Your task to perform on an android device: Go to CNN.com Image 0: 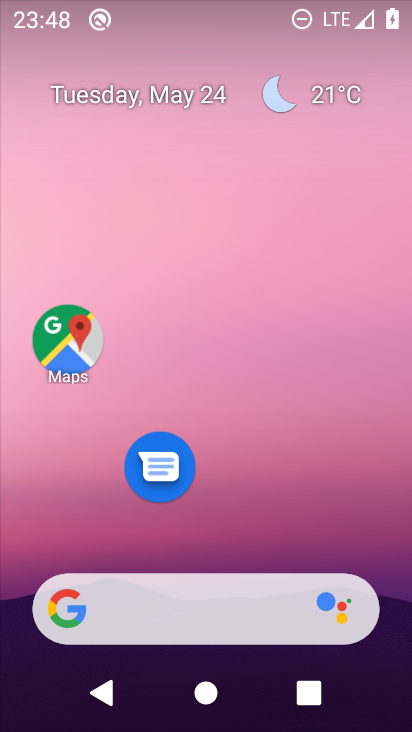
Step 0: drag from (216, 537) to (0, 540)
Your task to perform on an android device: Go to CNN.com Image 1: 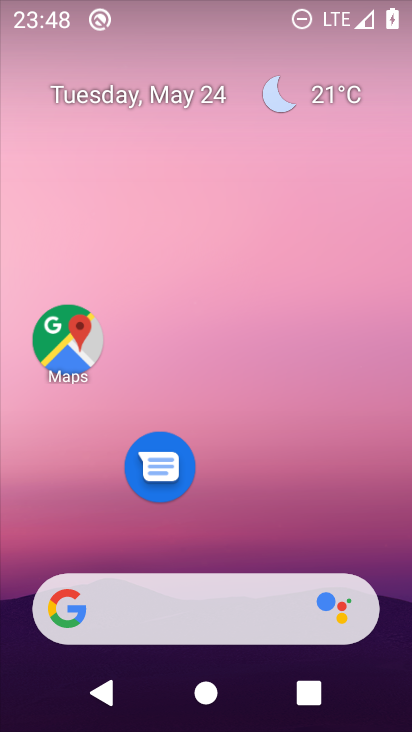
Step 1: drag from (239, 511) to (234, 15)
Your task to perform on an android device: Go to CNN.com Image 2: 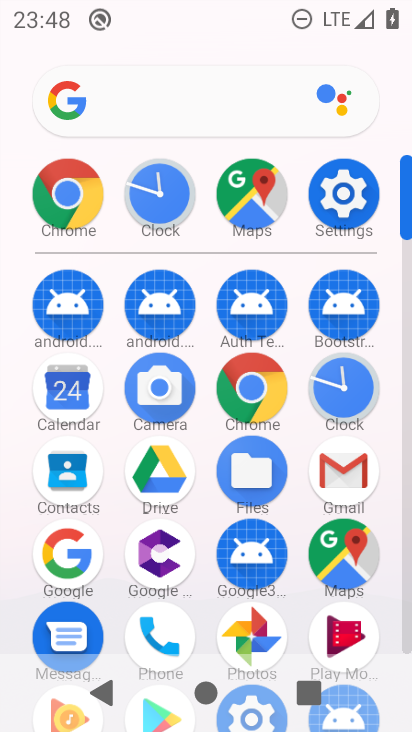
Step 2: click (150, 115)
Your task to perform on an android device: Go to CNN.com Image 3: 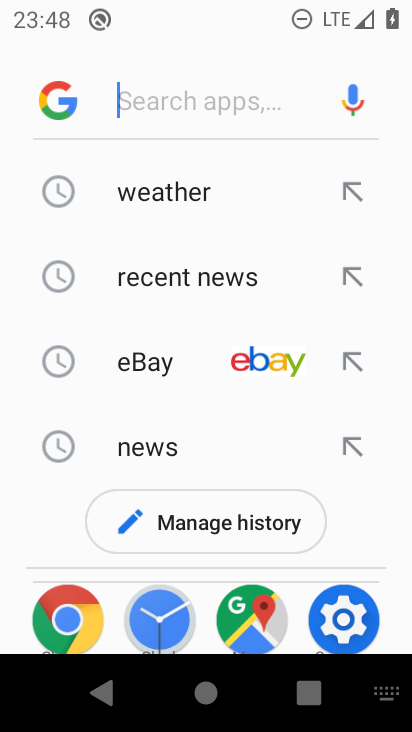
Step 3: type " CNN.com"
Your task to perform on an android device: Go to CNN.com Image 4: 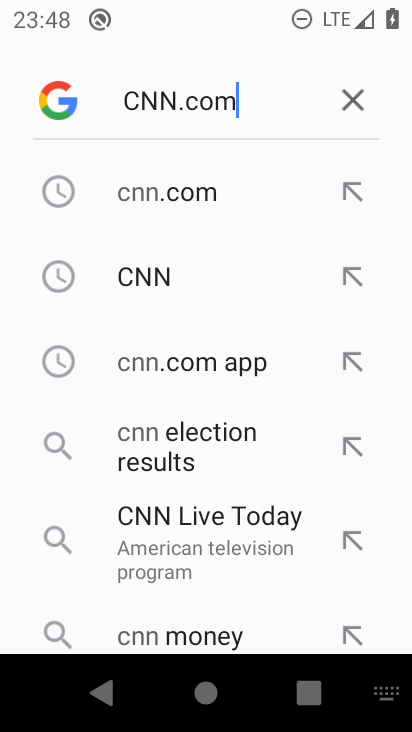
Step 4: type ""
Your task to perform on an android device: Go to CNN.com Image 5: 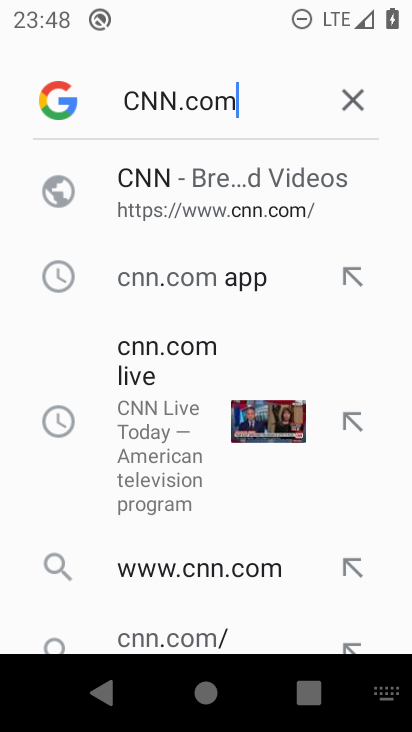
Step 5: click (143, 276)
Your task to perform on an android device: Go to CNN.com Image 6: 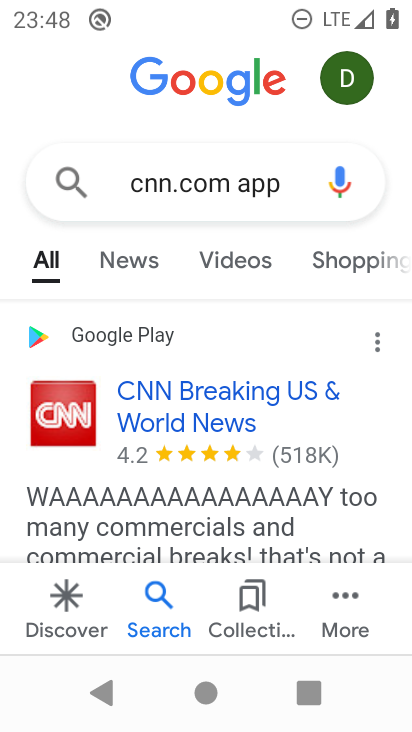
Step 6: drag from (189, 479) to (290, 196)
Your task to perform on an android device: Go to CNN.com Image 7: 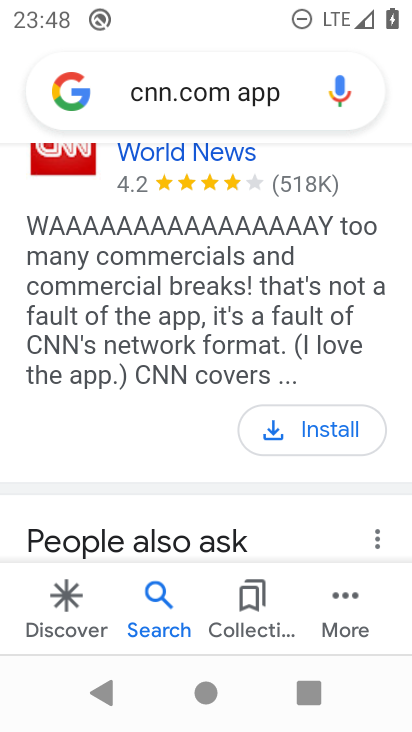
Step 7: drag from (156, 494) to (216, 169)
Your task to perform on an android device: Go to CNN.com Image 8: 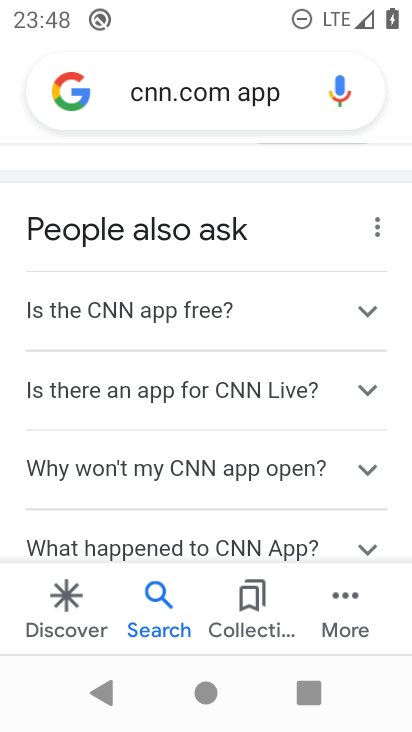
Step 8: drag from (148, 509) to (219, 100)
Your task to perform on an android device: Go to CNN.com Image 9: 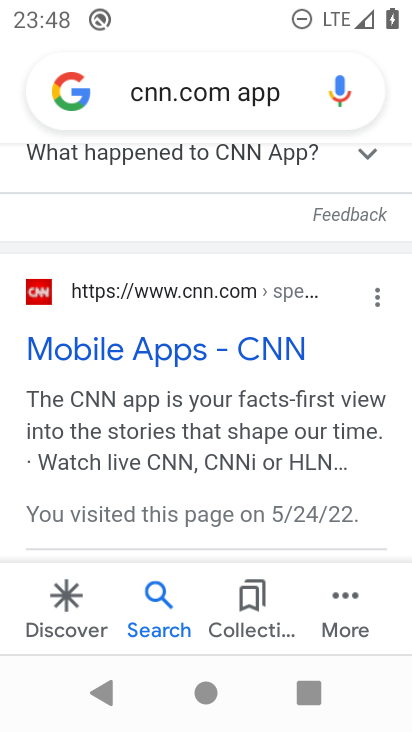
Step 9: click (104, 345)
Your task to perform on an android device: Go to CNN.com Image 10: 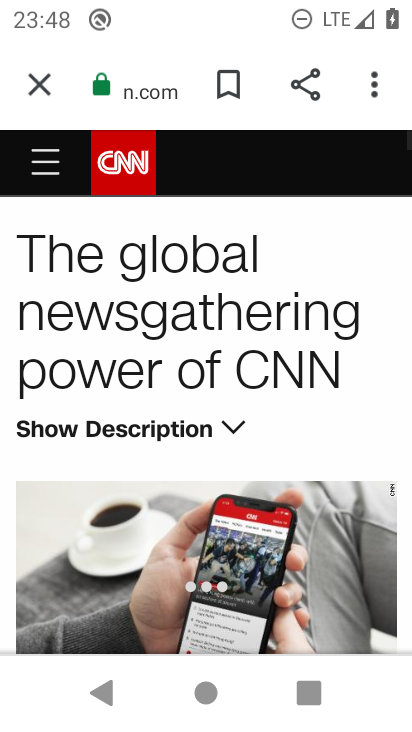
Step 10: task complete